Your task to perform on an android device: toggle javascript in the chrome app Image 0: 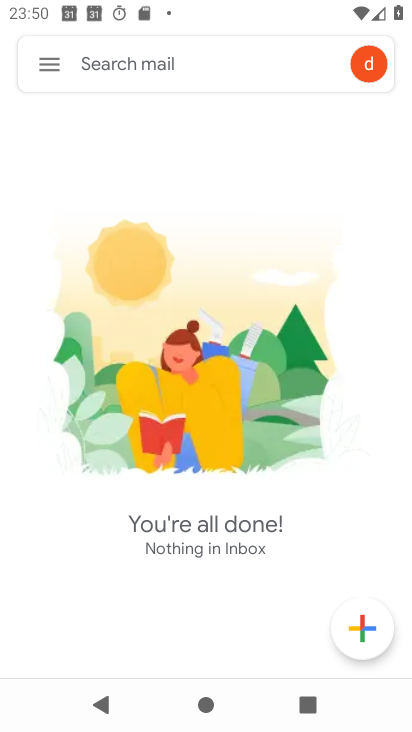
Step 0: press home button
Your task to perform on an android device: toggle javascript in the chrome app Image 1: 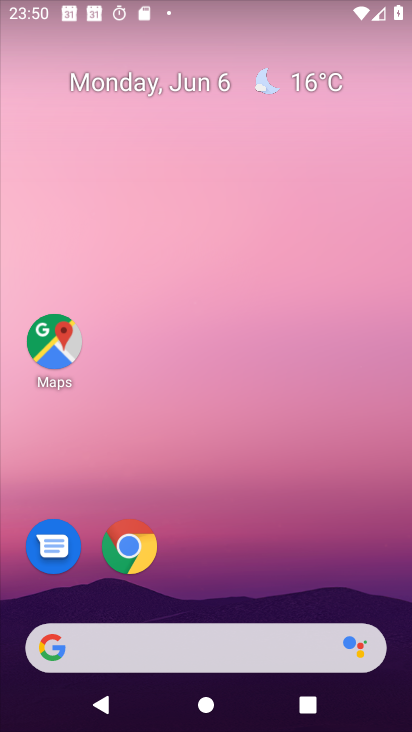
Step 1: drag from (233, 585) to (335, 55)
Your task to perform on an android device: toggle javascript in the chrome app Image 2: 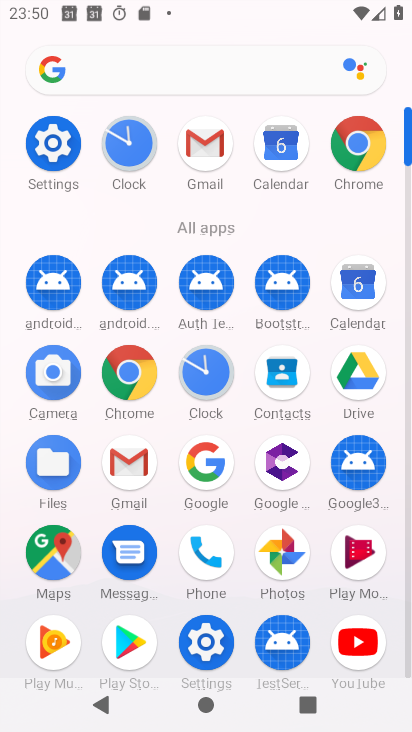
Step 2: click (128, 384)
Your task to perform on an android device: toggle javascript in the chrome app Image 3: 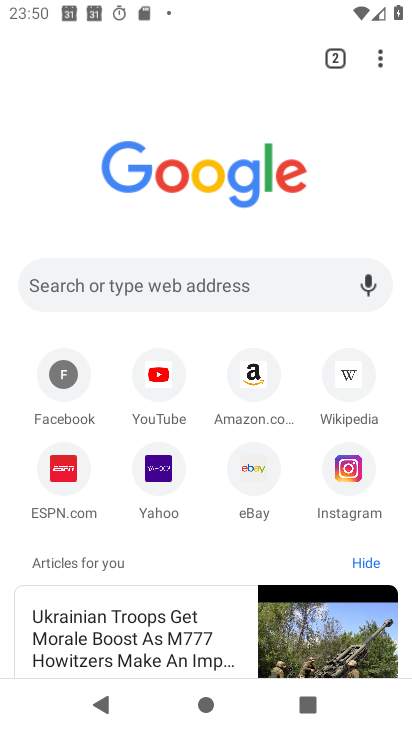
Step 3: click (381, 56)
Your task to perform on an android device: toggle javascript in the chrome app Image 4: 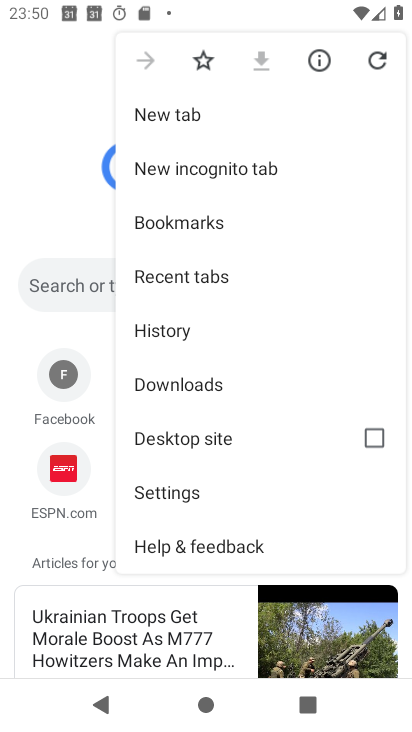
Step 4: click (178, 491)
Your task to perform on an android device: toggle javascript in the chrome app Image 5: 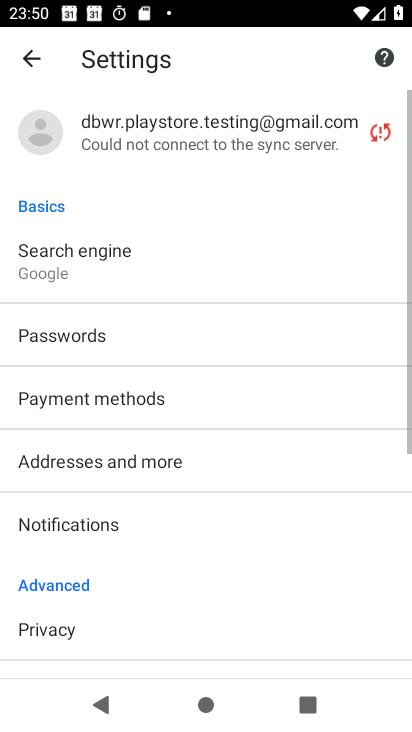
Step 5: drag from (82, 538) to (178, 244)
Your task to perform on an android device: toggle javascript in the chrome app Image 6: 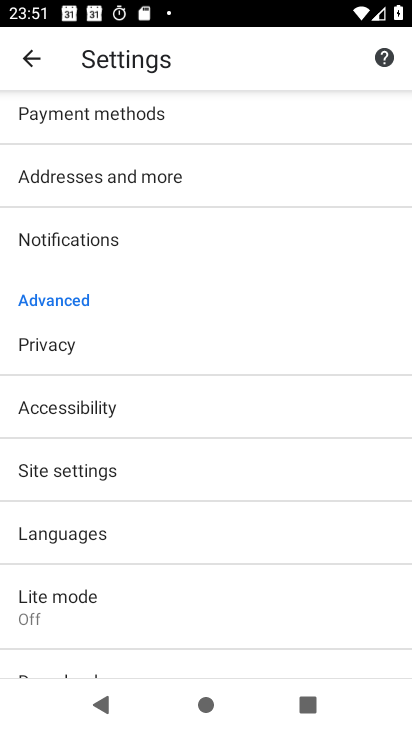
Step 6: click (81, 484)
Your task to perform on an android device: toggle javascript in the chrome app Image 7: 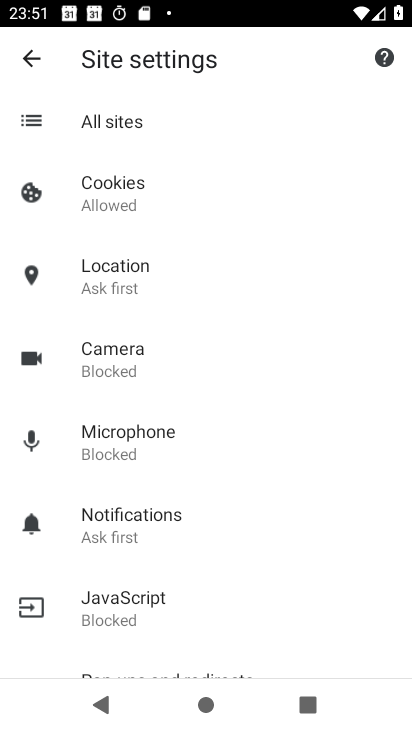
Step 7: drag from (133, 554) to (131, 498)
Your task to perform on an android device: toggle javascript in the chrome app Image 8: 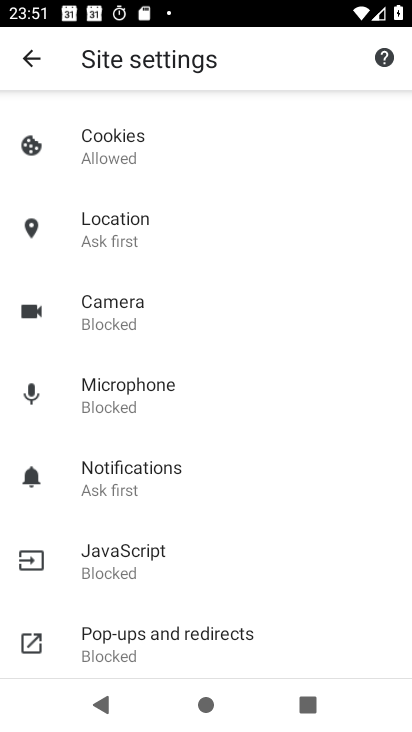
Step 8: click (115, 560)
Your task to perform on an android device: toggle javascript in the chrome app Image 9: 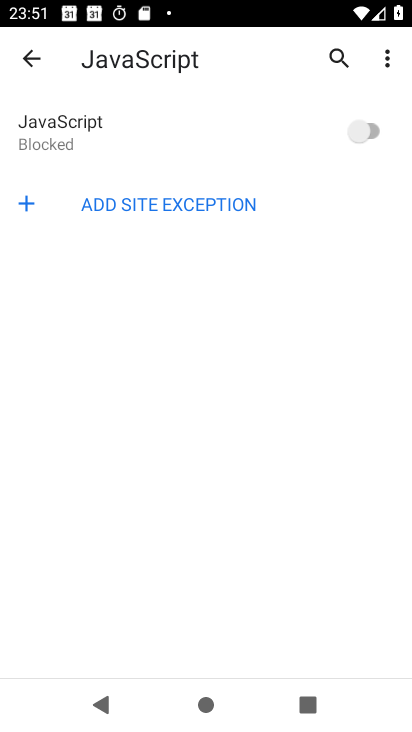
Step 9: click (370, 120)
Your task to perform on an android device: toggle javascript in the chrome app Image 10: 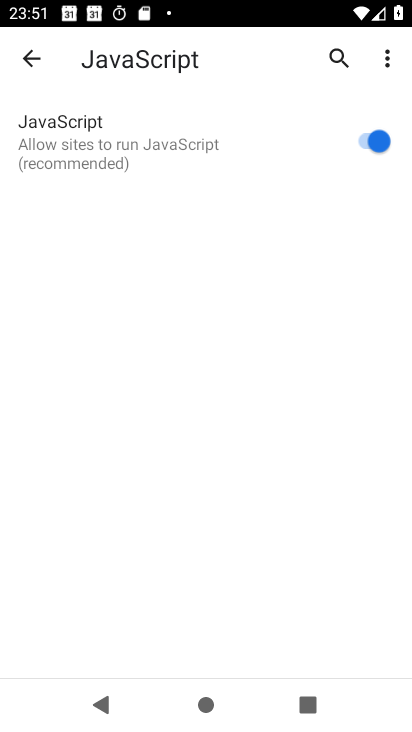
Step 10: task complete